Your task to perform on an android device: change timer sound Image 0: 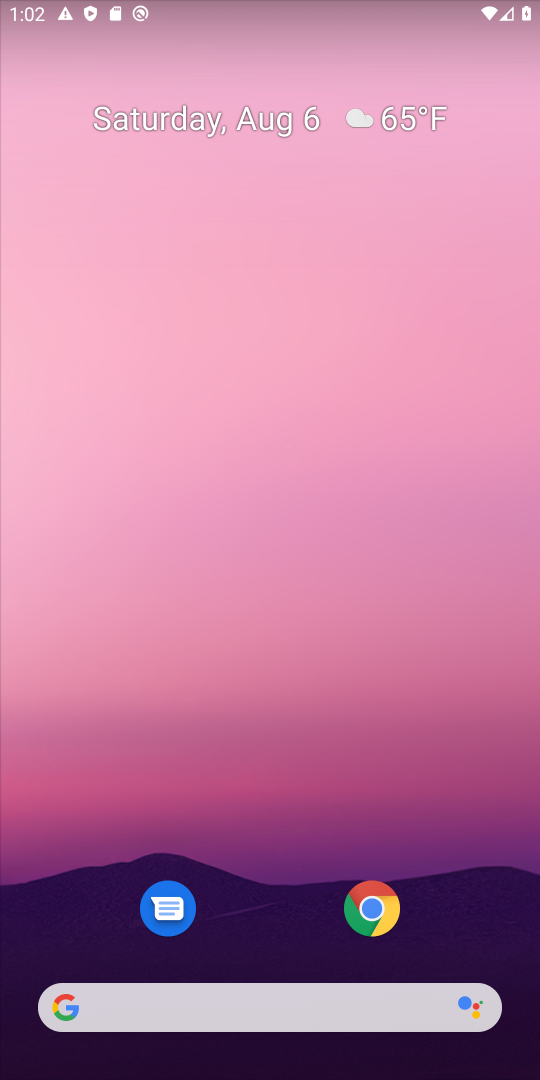
Step 0: drag from (274, 886) to (157, 65)
Your task to perform on an android device: change timer sound Image 1: 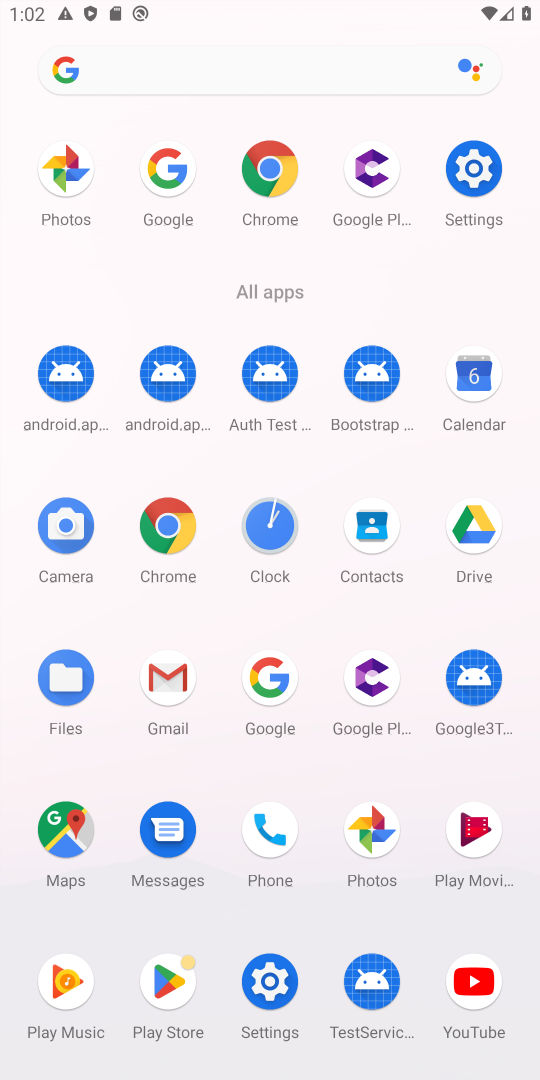
Step 1: click (268, 537)
Your task to perform on an android device: change timer sound Image 2: 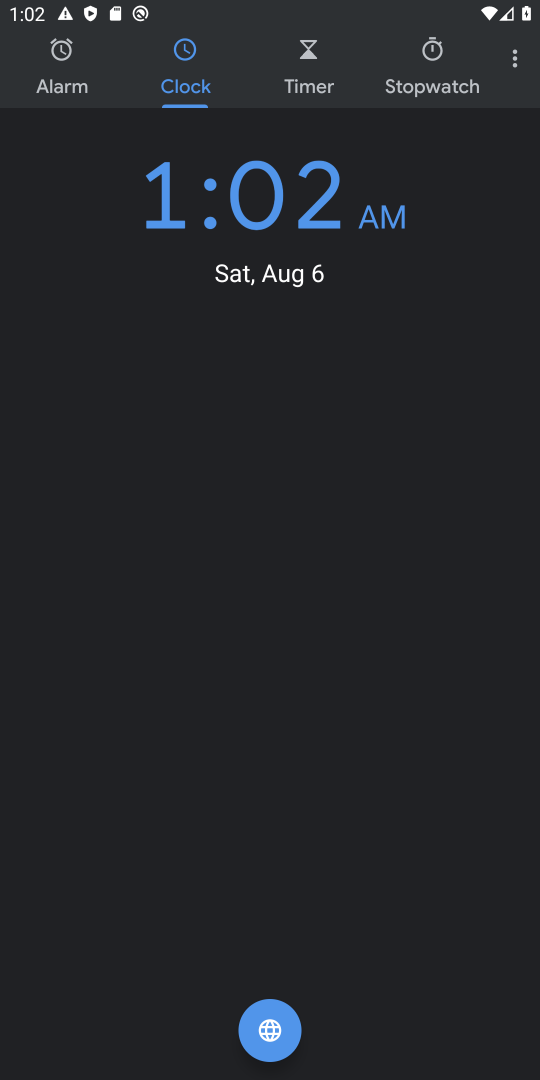
Step 2: click (514, 80)
Your task to perform on an android device: change timer sound Image 3: 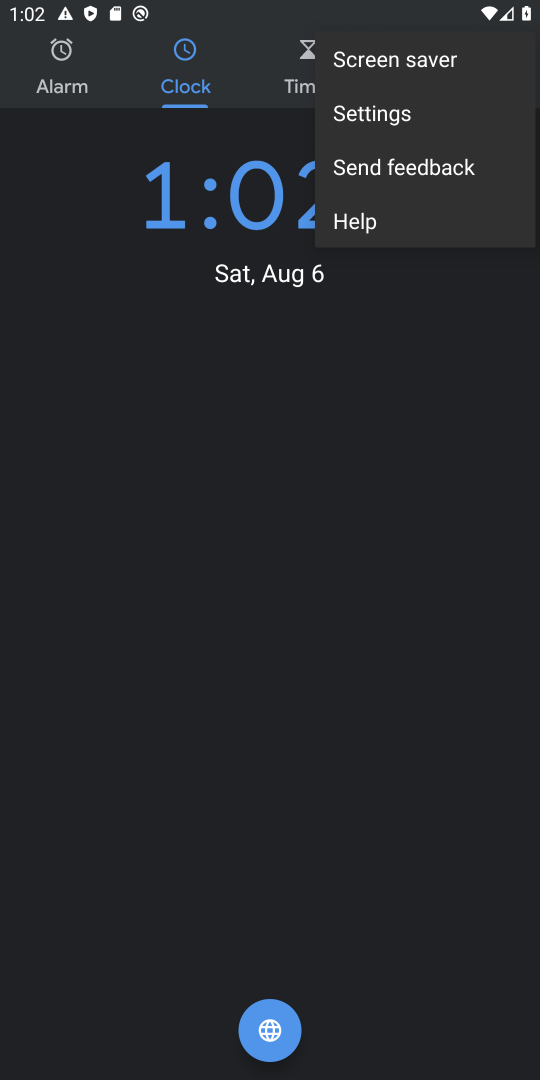
Step 3: click (375, 119)
Your task to perform on an android device: change timer sound Image 4: 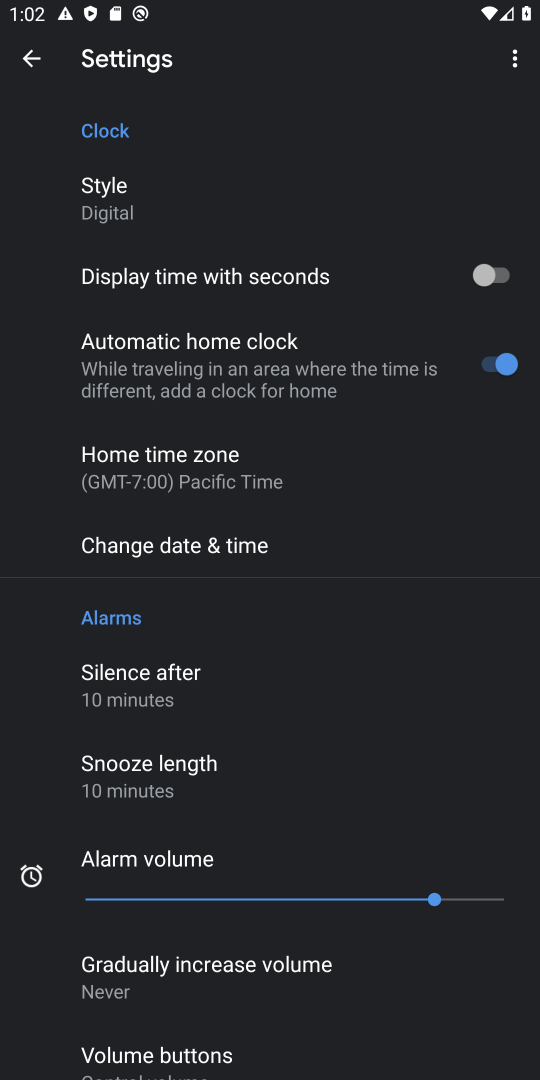
Step 4: drag from (305, 723) to (314, 269)
Your task to perform on an android device: change timer sound Image 5: 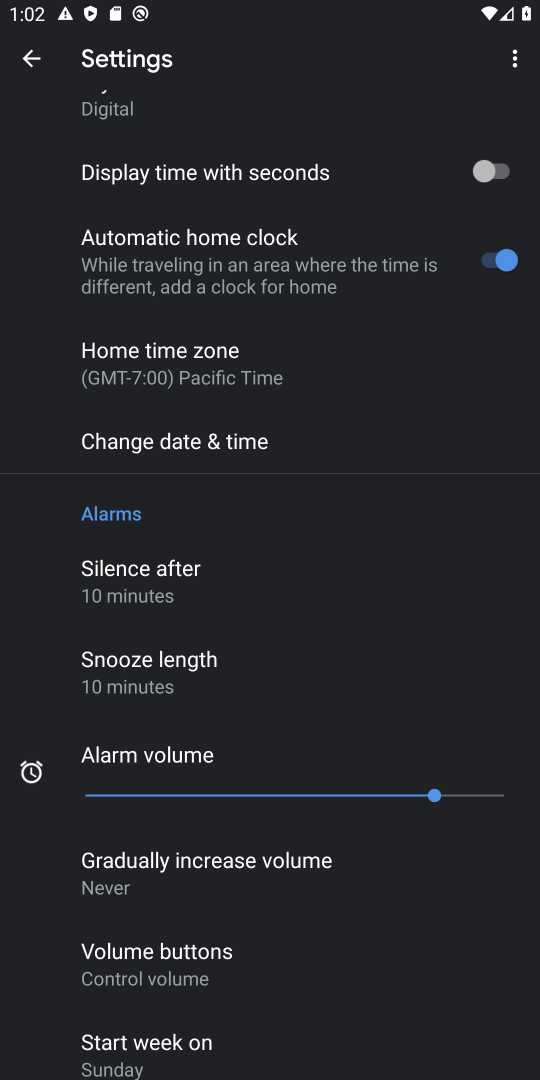
Step 5: drag from (238, 827) to (274, 79)
Your task to perform on an android device: change timer sound Image 6: 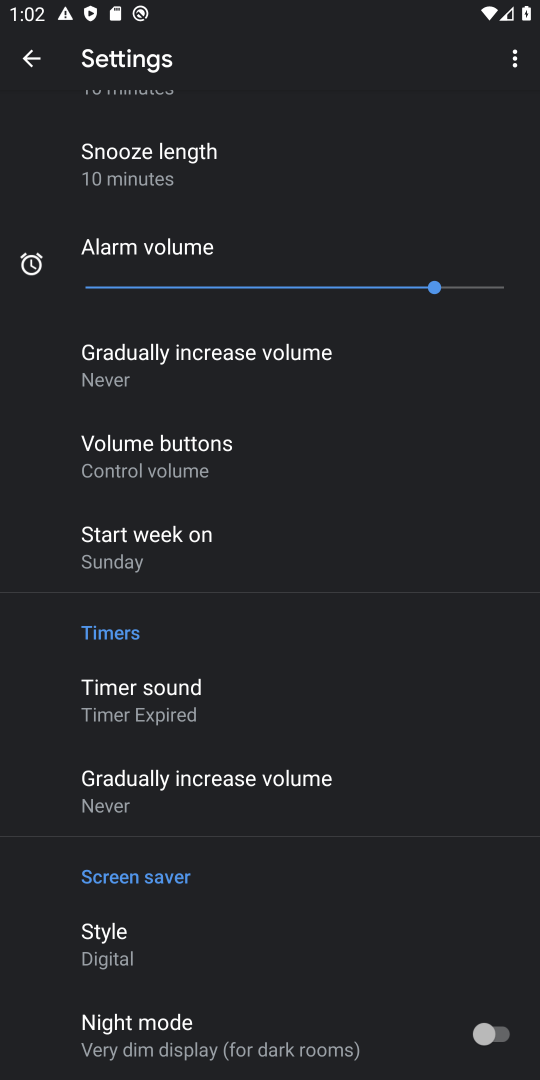
Step 6: drag from (107, 880) to (86, 321)
Your task to perform on an android device: change timer sound Image 7: 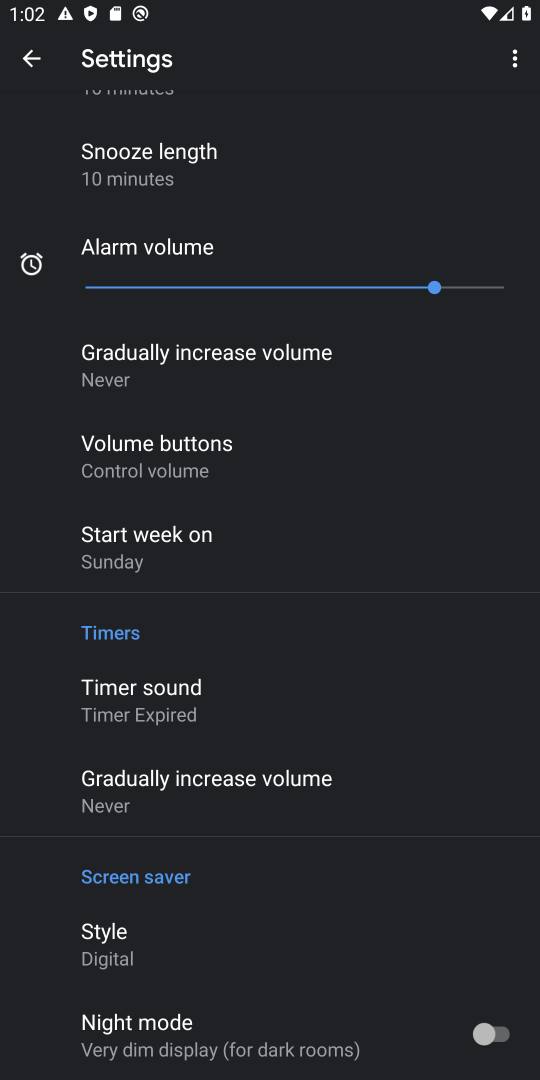
Step 7: click (165, 677)
Your task to perform on an android device: change timer sound Image 8: 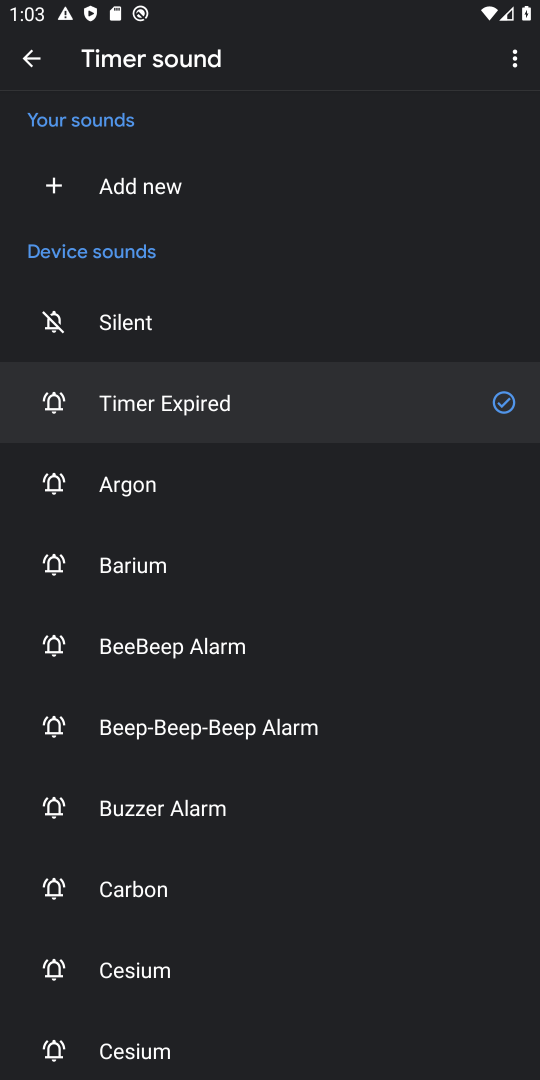
Step 8: click (299, 490)
Your task to perform on an android device: change timer sound Image 9: 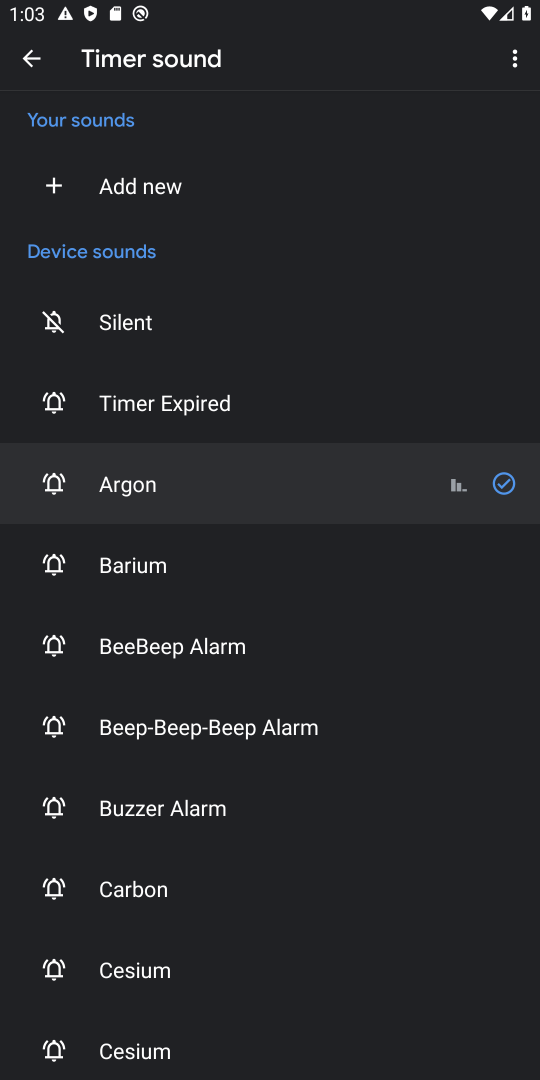
Step 9: task complete